Your task to perform on an android device: change text size in settings app Image 0: 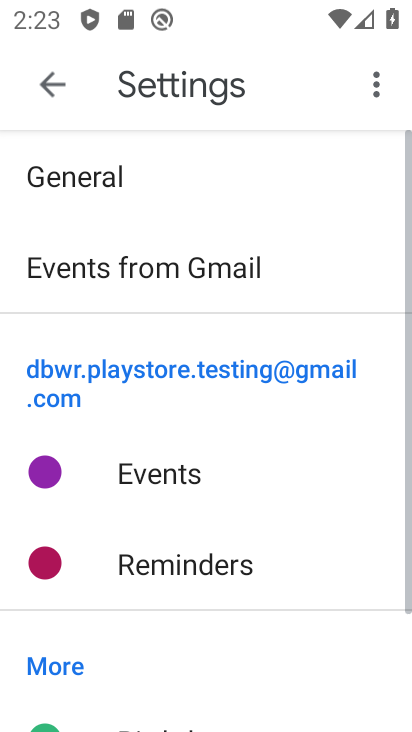
Step 0: press home button
Your task to perform on an android device: change text size in settings app Image 1: 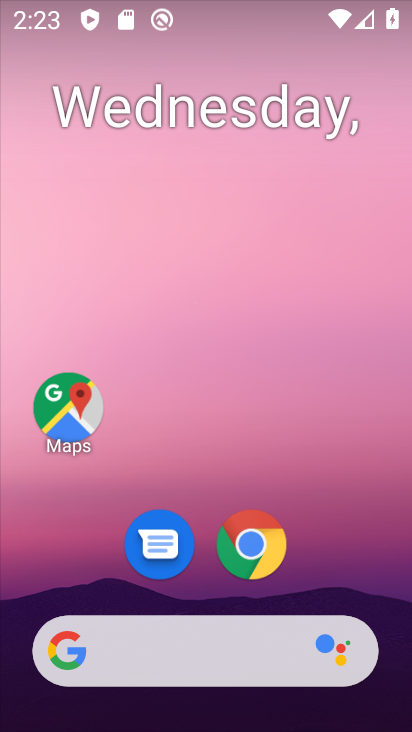
Step 1: drag from (139, 672) to (249, 334)
Your task to perform on an android device: change text size in settings app Image 2: 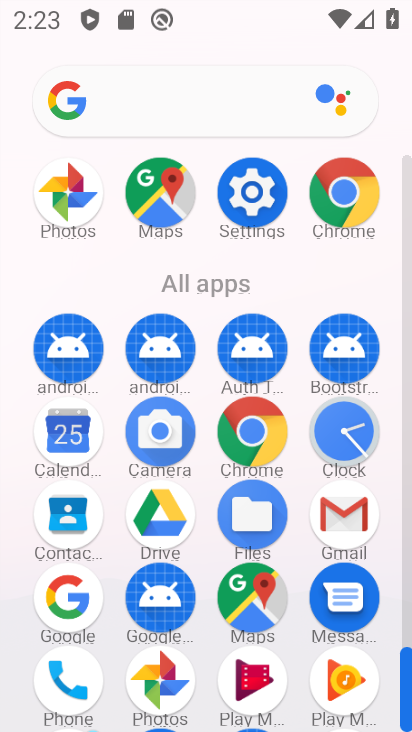
Step 2: click (265, 202)
Your task to perform on an android device: change text size in settings app Image 3: 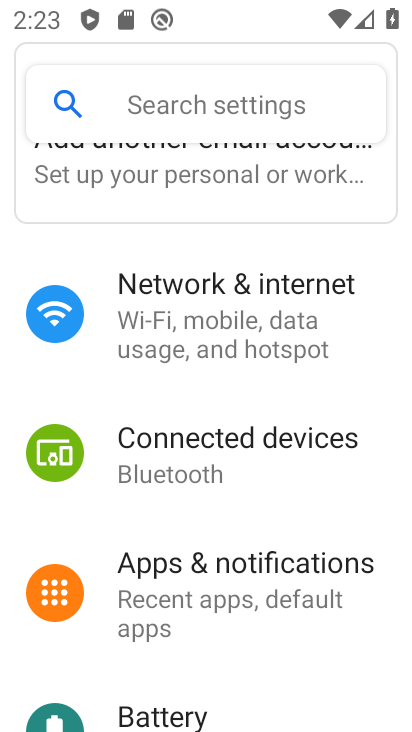
Step 3: drag from (268, 509) to (365, 105)
Your task to perform on an android device: change text size in settings app Image 4: 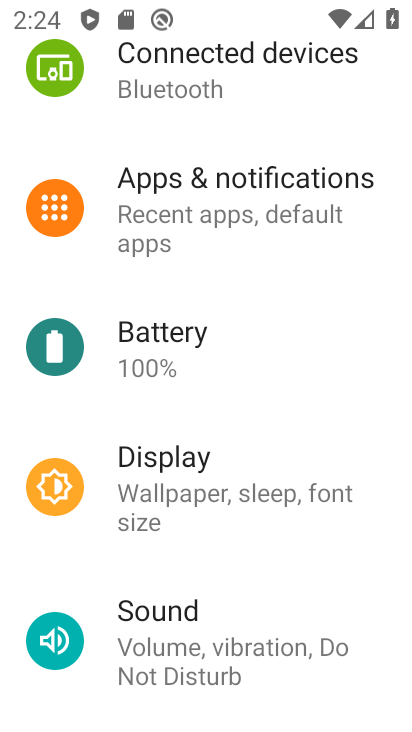
Step 4: click (176, 485)
Your task to perform on an android device: change text size in settings app Image 5: 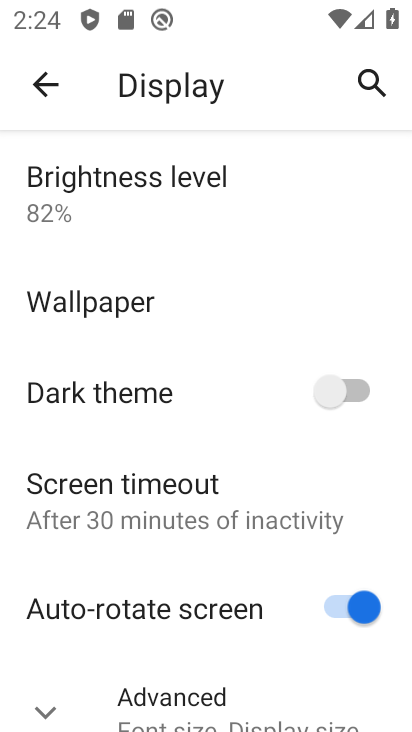
Step 5: drag from (127, 649) to (295, 213)
Your task to perform on an android device: change text size in settings app Image 6: 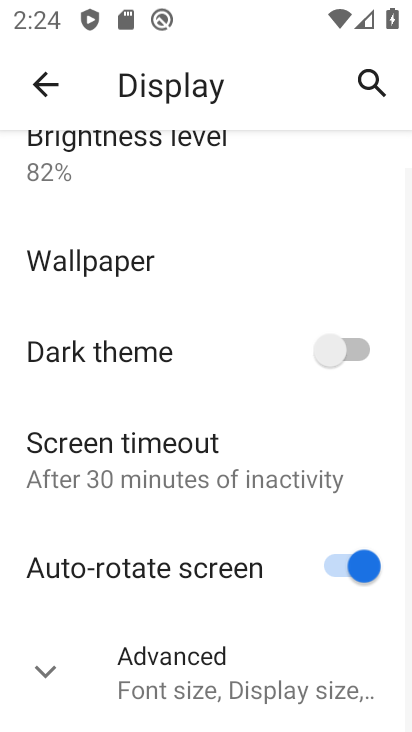
Step 6: click (171, 657)
Your task to perform on an android device: change text size in settings app Image 7: 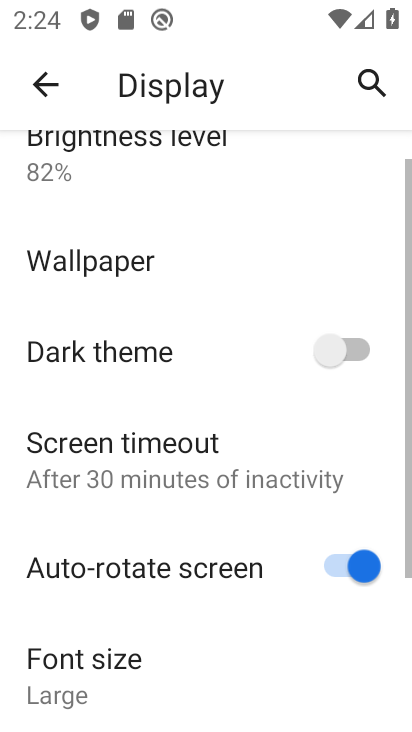
Step 7: drag from (171, 656) to (275, 218)
Your task to perform on an android device: change text size in settings app Image 8: 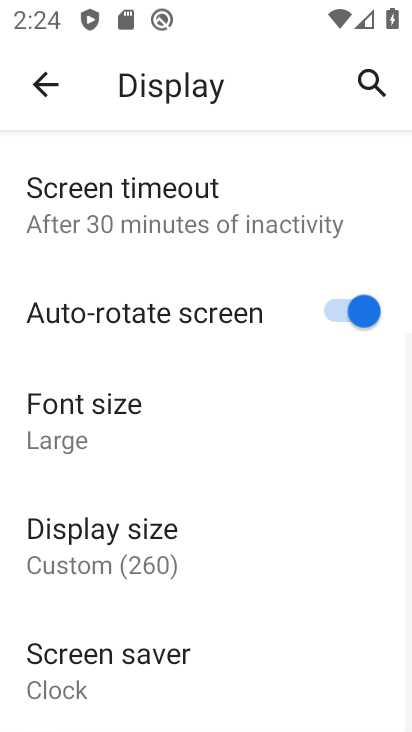
Step 8: click (85, 406)
Your task to perform on an android device: change text size in settings app Image 9: 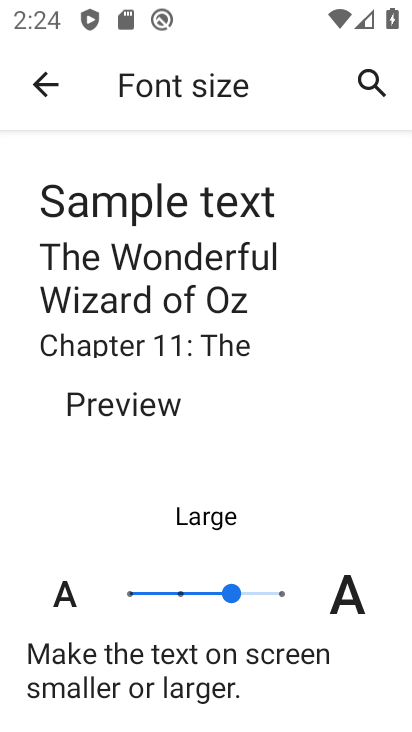
Step 9: click (132, 593)
Your task to perform on an android device: change text size in settings app Image 10: 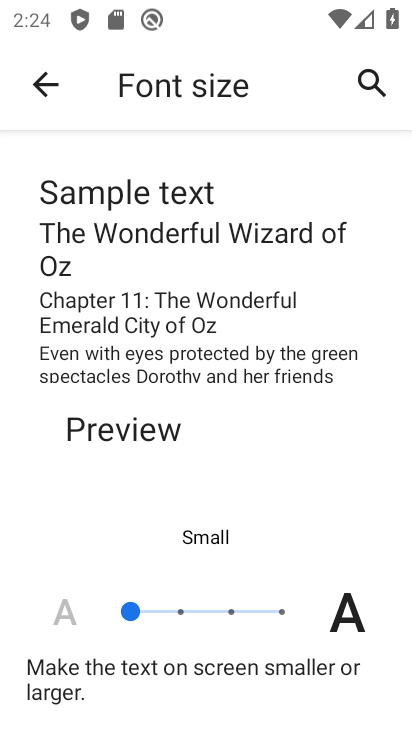
Step 10: task complete